Your task to perform on an android device: choose inbox layout in the gmail app Image 0: 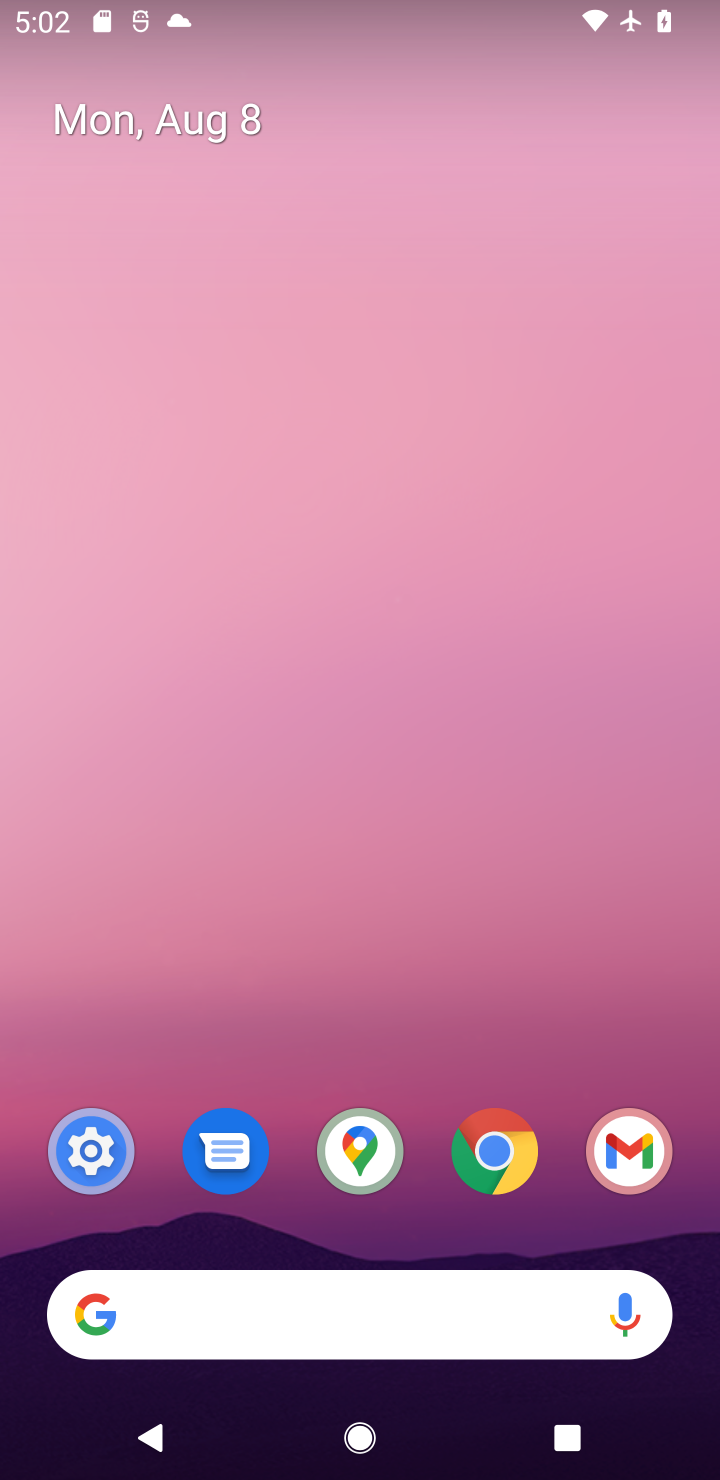
Step 0: click (627, 1152)
Your task to perform on an android device: choose inbox layout in the gmail app Image 1: 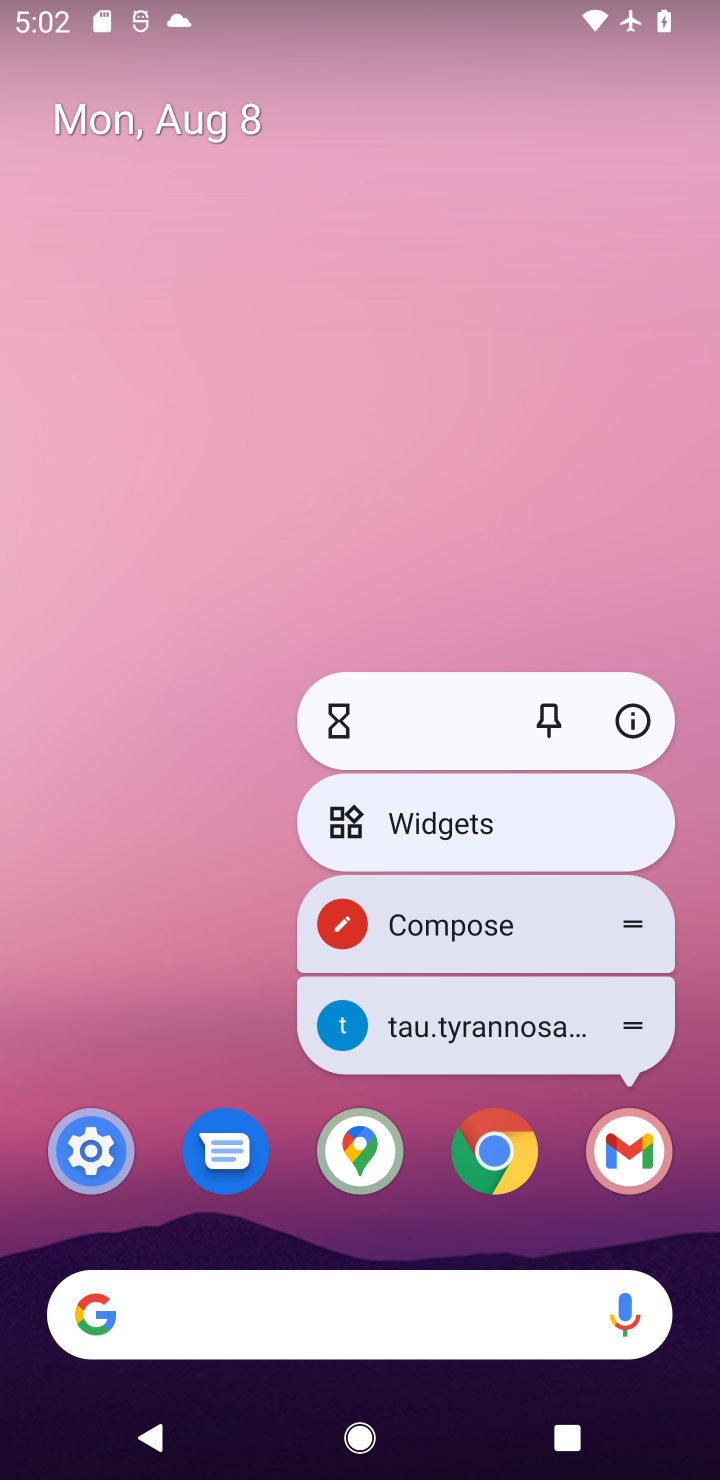
Step 1: click (606, 1183)
Your task to perform on an android device: choose inbox layout in the gmail app Image 2: 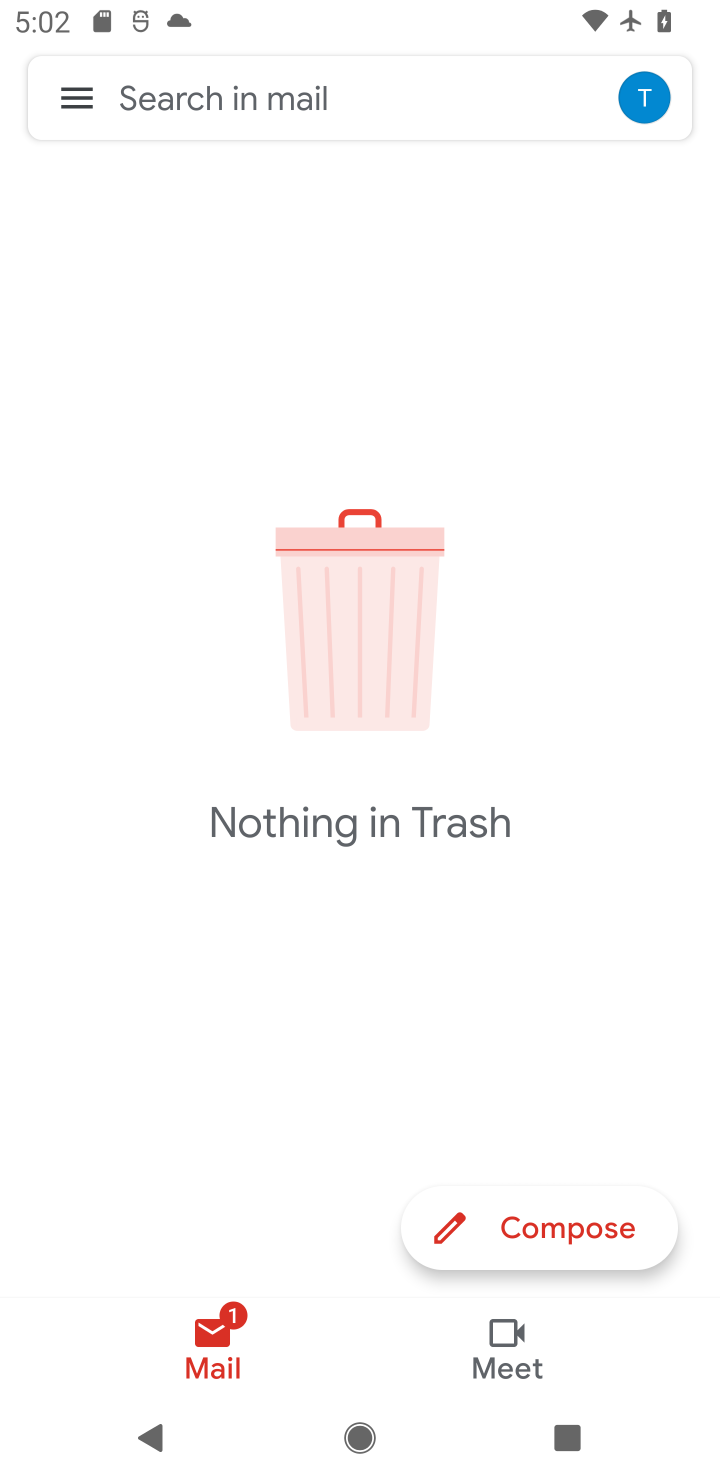
Step 2: click (59, 87)
Your task to perform on an android device: choose inbox layout in the gmail app Image 3: 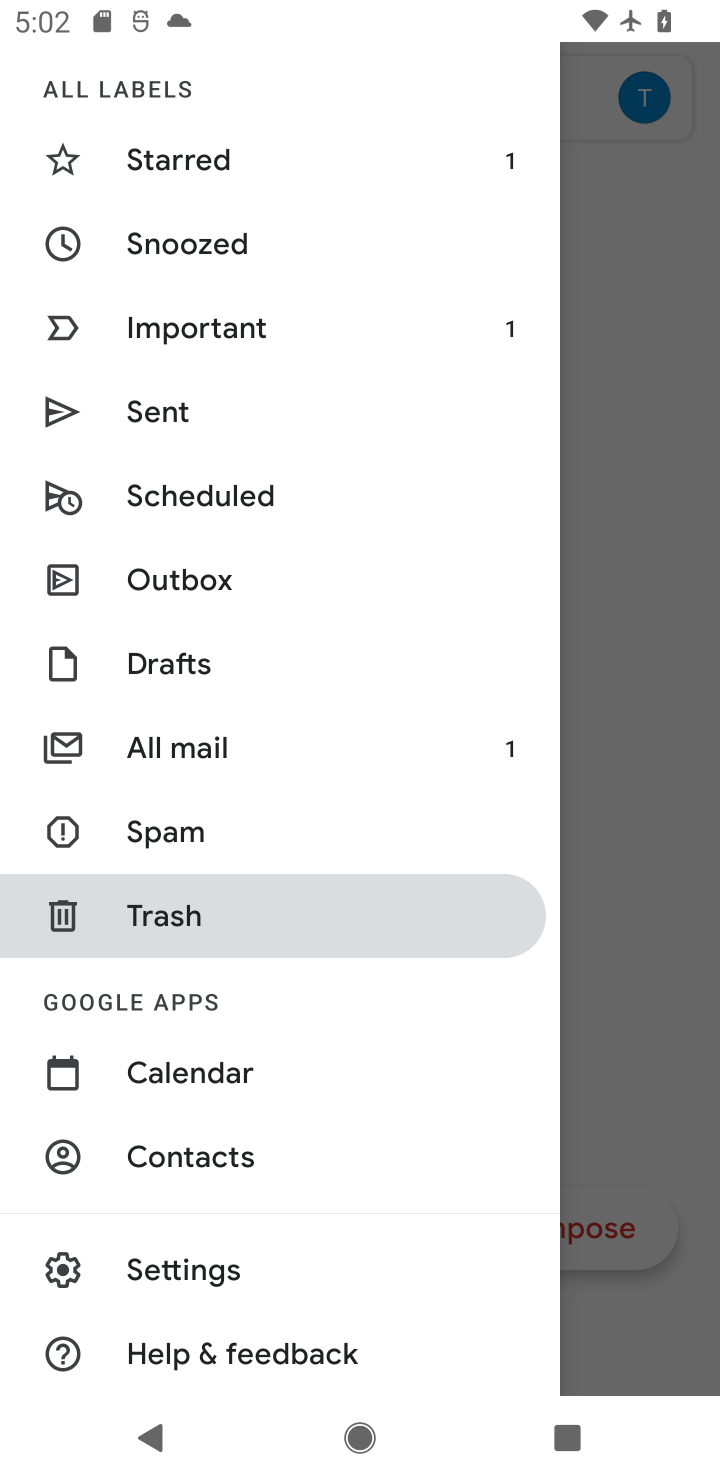
Step 3: click (177, 1258)
Your task to perform on an android device: choose inbox layout in the gmail app Image 4: 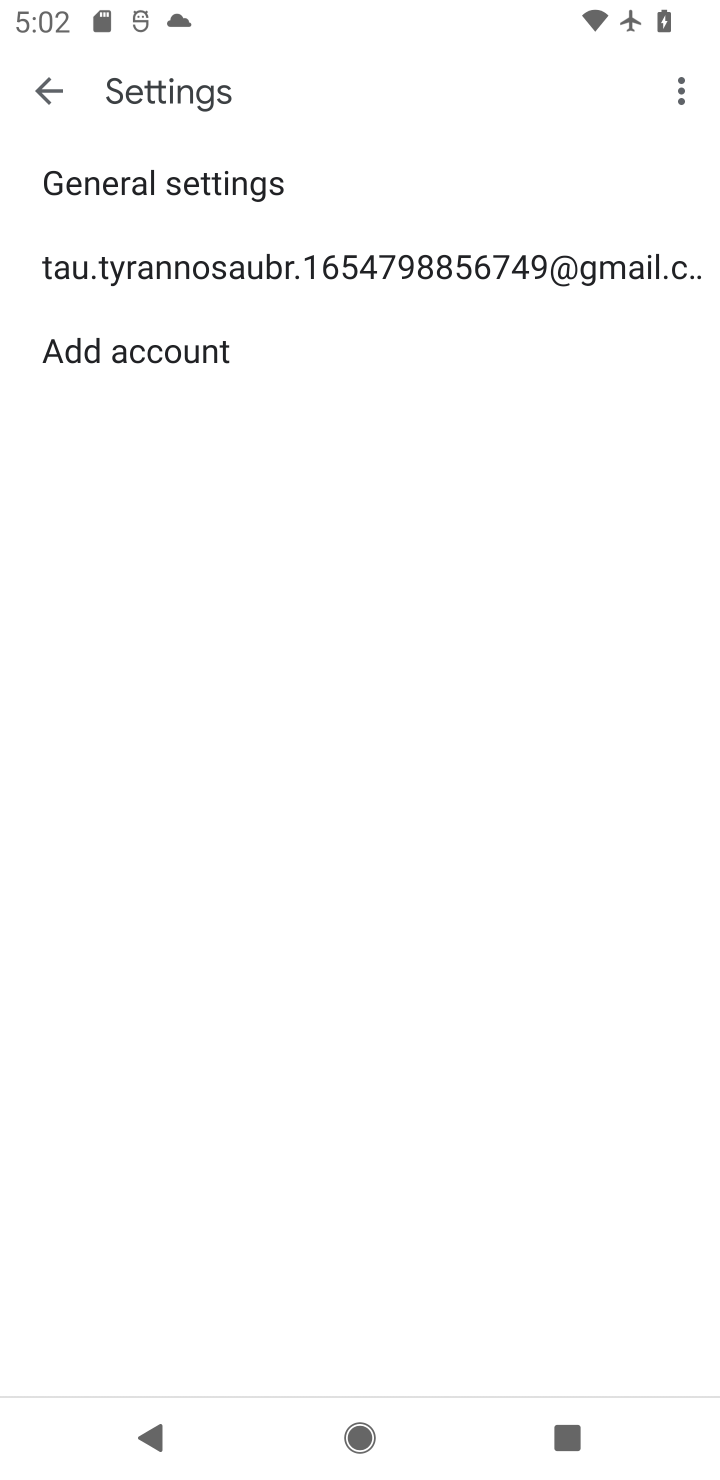
Step 4: click (459, 301)
Your task to perform on an android device: choose inbox layout in the gmail app Image 5: 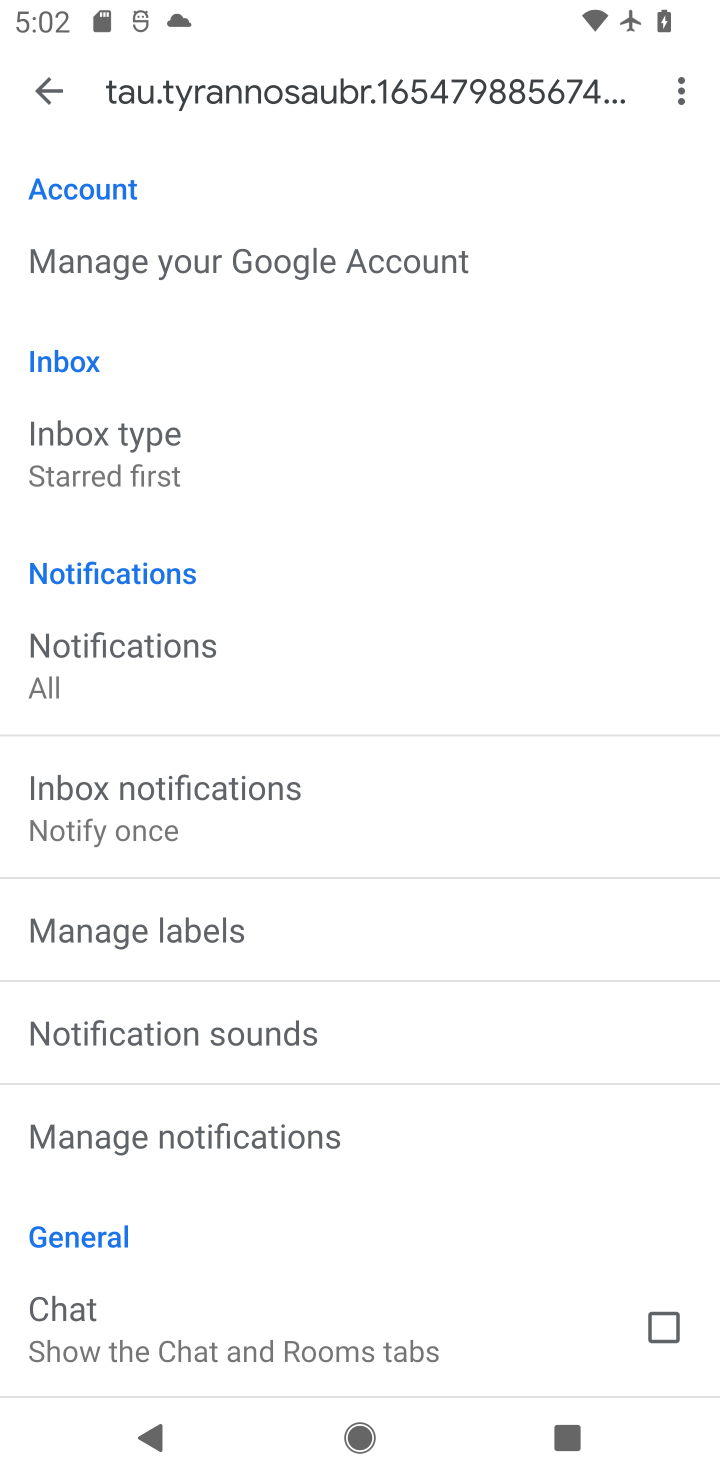
Step 5: click (262, 474)
Your task to perform on an android device: choose inbox layout in the gmail app Image 6: 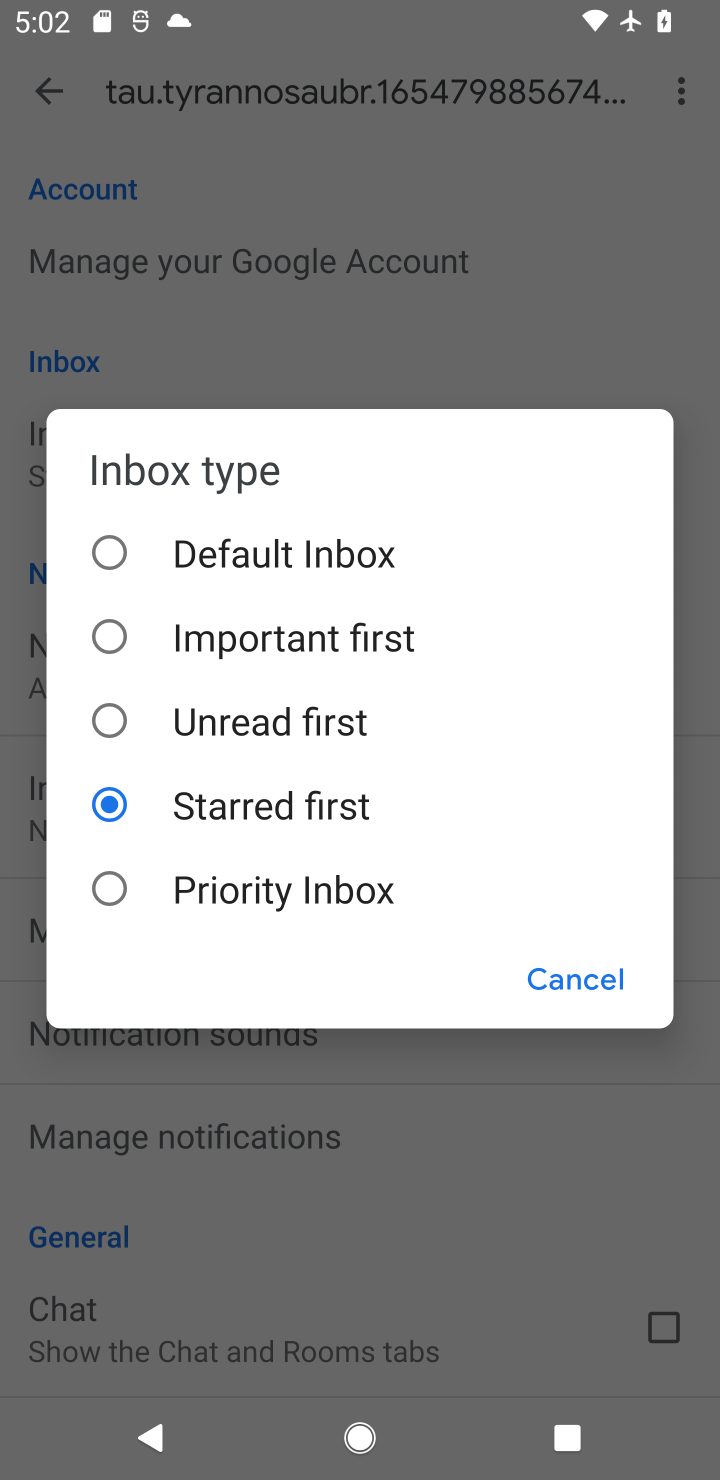
Step 6: click (267, 554)
Your task to perform on an android device: choose inbox layout in the gmail app Image 7: 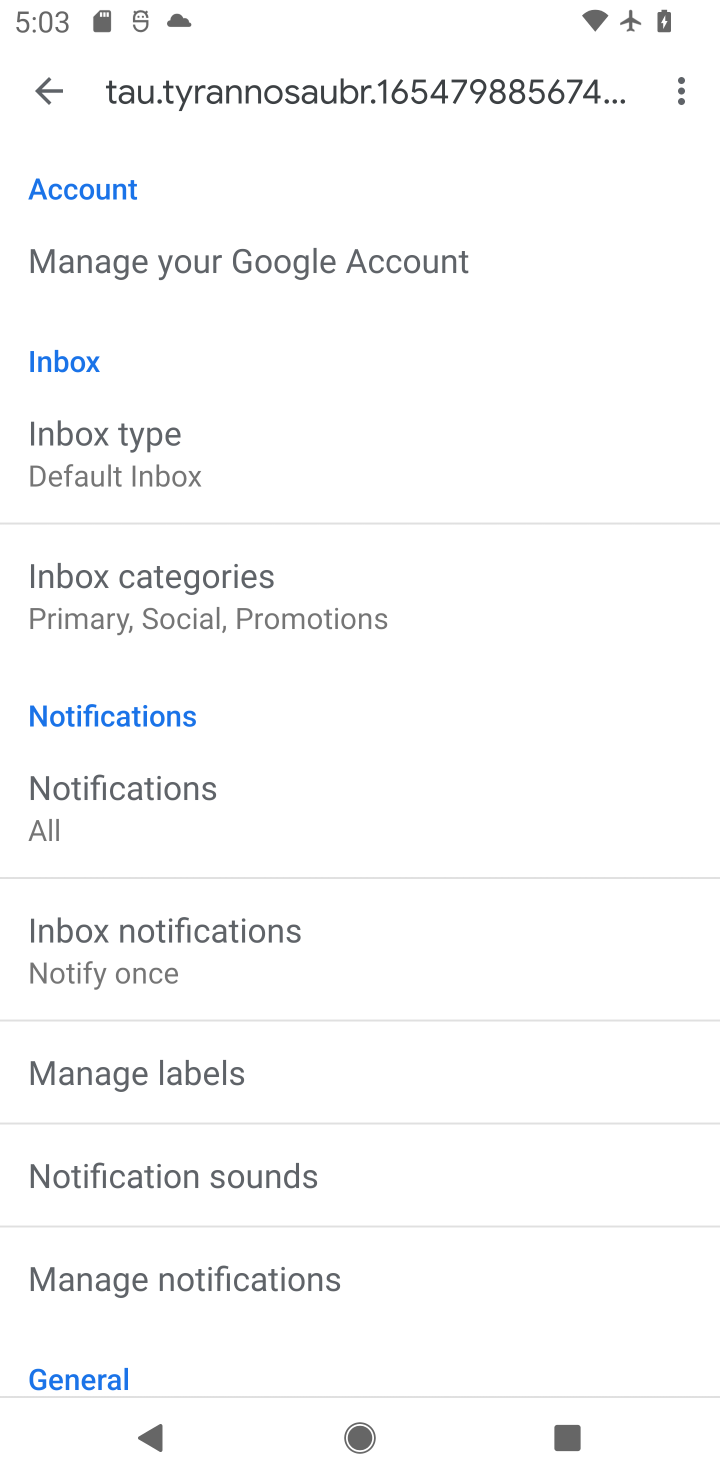
Step 7: task complete